Your task to perform on an android device: check storage Image 0: 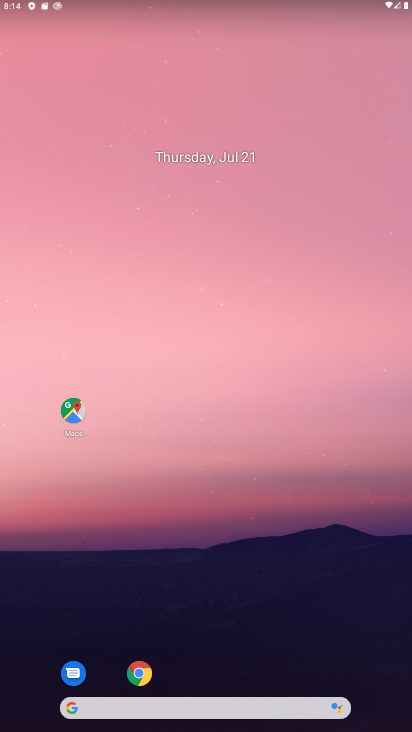
Step 0: drag from (206, 672) to (210, 137)
Your task to perform on an android device: check storage Image 1: 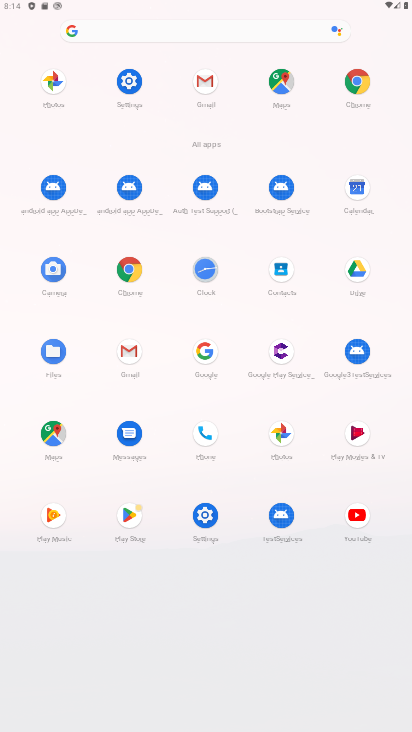
Step 1: click (122, 91)
Your task to perform on an android device: check storage Image 2: 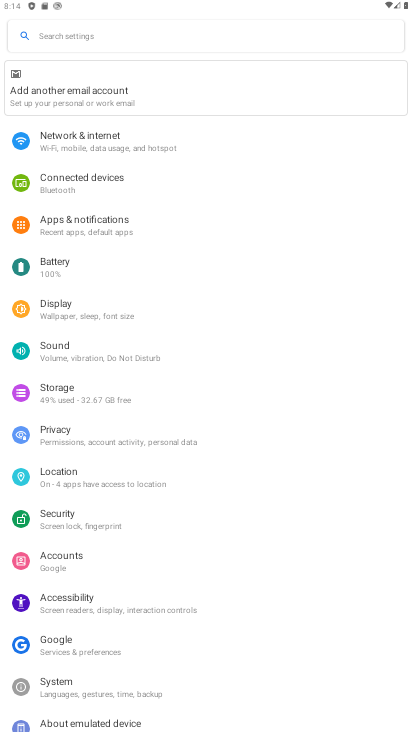
Step 2: click (78, 399)
Your task to perform on an android device: check storage Image 3: 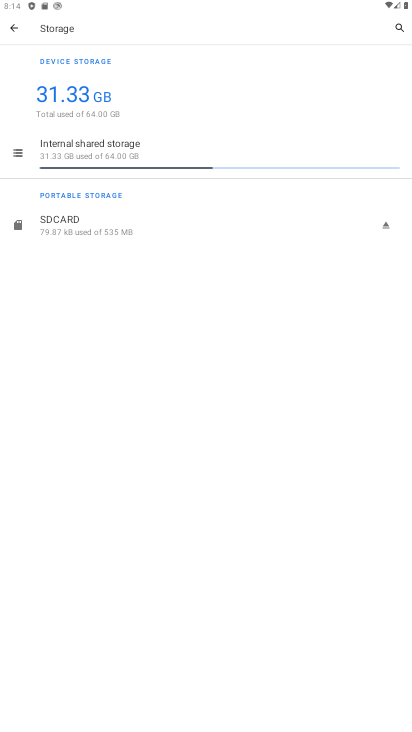
Step 3: click (106, 172)
Your task to perform on an android device: check storage Image 4: 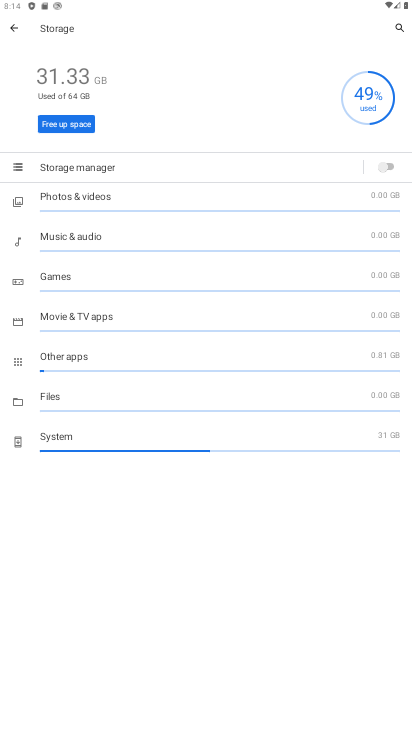
Step 4: task complete